Your task to perform on an android device: open the mobile data screen to see how much data has been used Image 0: 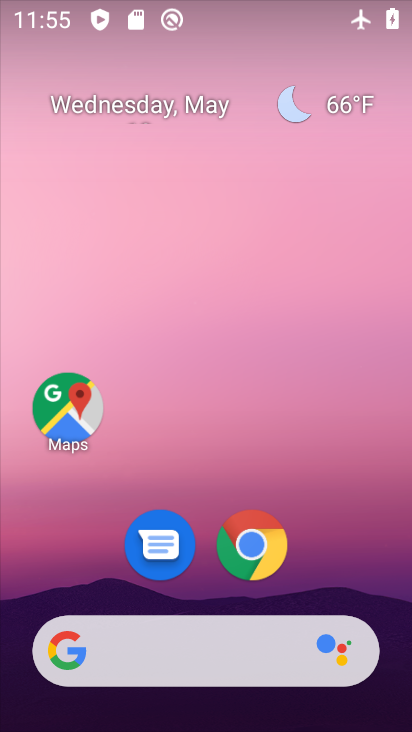
Step 0: drag from (168, 702) to (173, 9)
Your task to perform on an android device: open the mobile data screen to see how much data has been used Image 1: 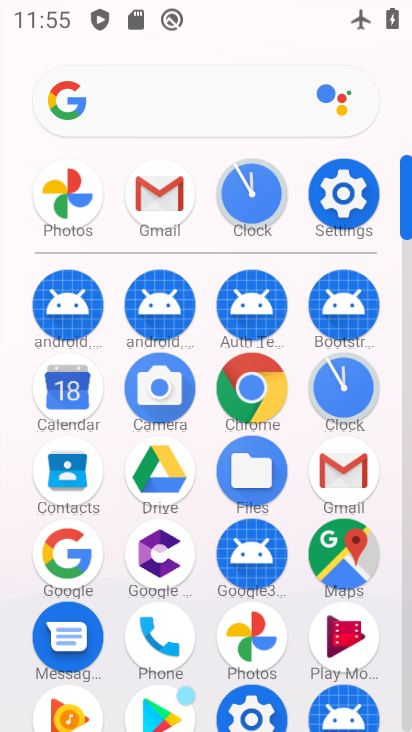
Step 1: click (367, 186)
Your task to perform on an android device: open the mobile data screen to see how much data has been used Image 2: 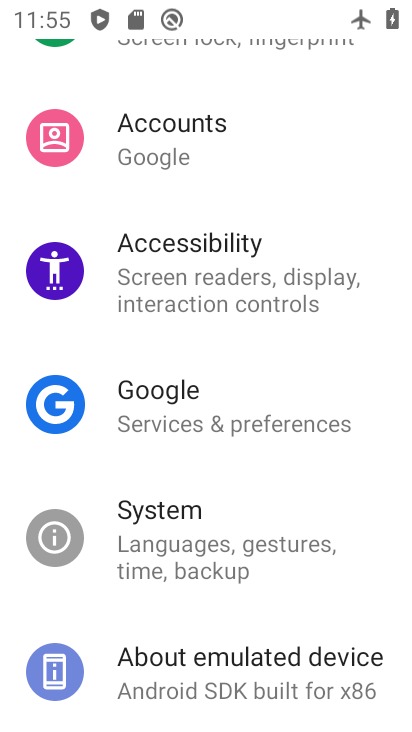
Step 2: drag from (329, 173) to (270, 580)
Your task to perform on an android device: open the mobile data screen to see how much data has been used Image 3: 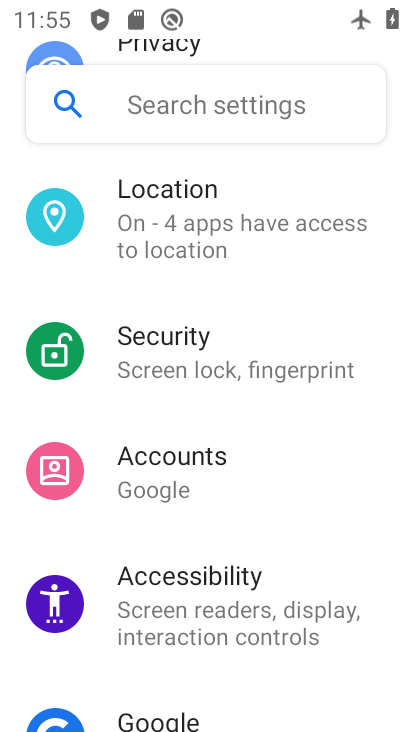
Step 3: drag from (249, 155) to (292, 602)
Your task to perform on an android device: open the mobile data screen to see how much data has been used Image 4: 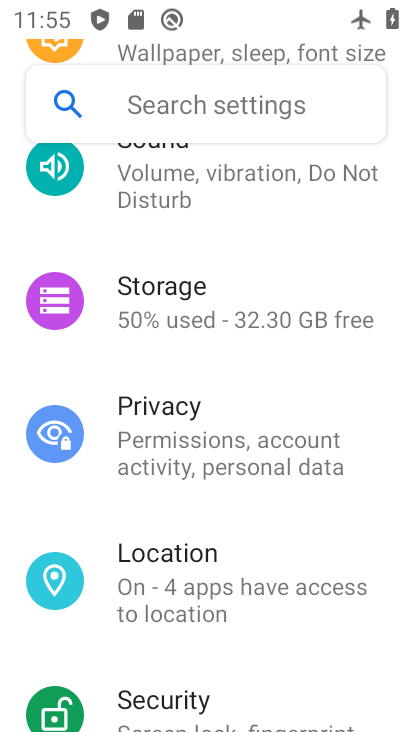
Step 4: drag from (259, 203) to (330, 649)
Your task to perform on an android device: open the mobile data screen to see how much data has been used Image 5: 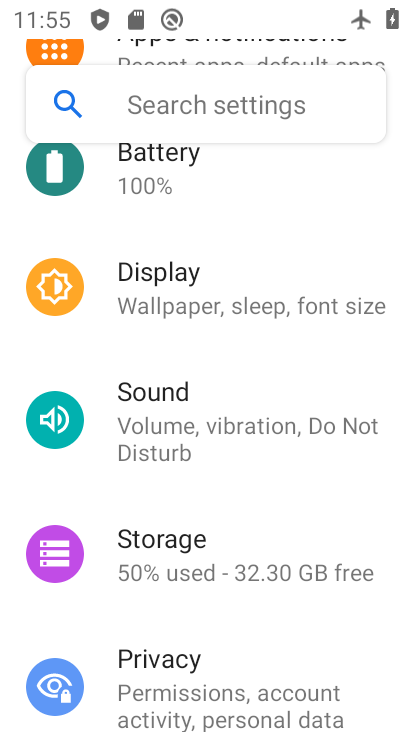
Step 5: drag from (293, 229) to (283, 728)
Your task to perform on an android device: open the mobile data screen to see how much data has been used Image 6: 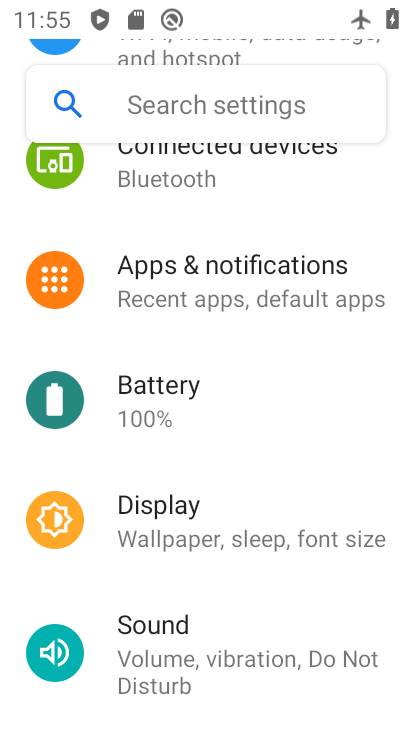
Step 6: drag from (294, 220) to (288, 631)
Your task to perform on an android device: open the mobile data screen to see how much data has been used Image 7: 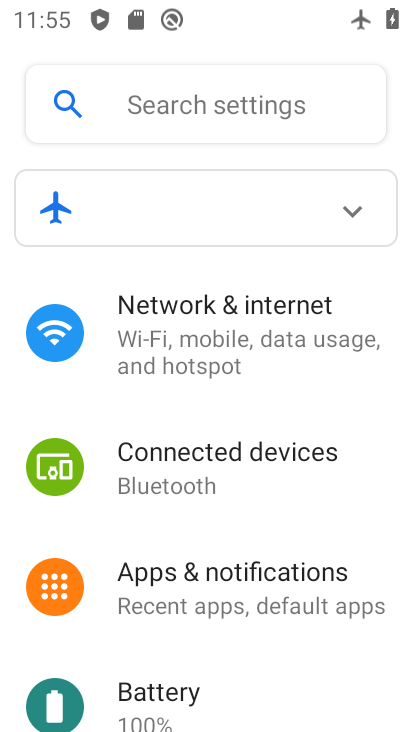
Step 7: click (257, 342)
Your task to perform on an android device: open the mobile data screen to see how much data has been used Image 8: 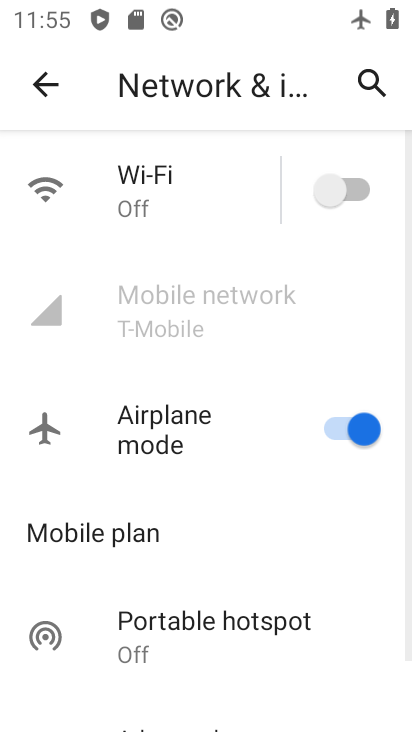
Step 8: click (173, 307)
Your task to perform on an android device: open the mobile data screen to see how much data has been used Image 9: 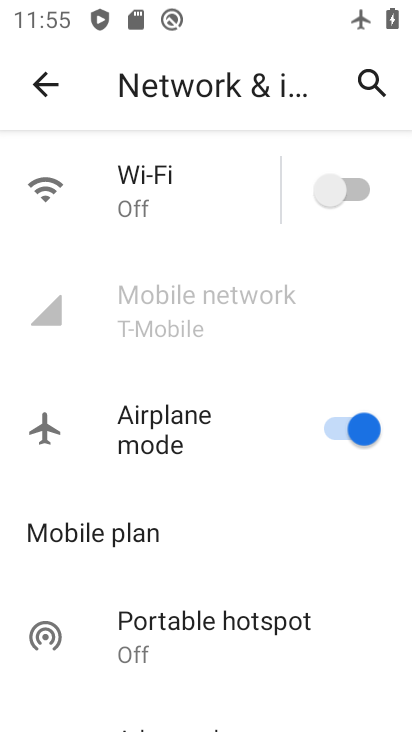
Step 9: task complete